Your task to perform on an android device: Toggle the flashlight Image 0: 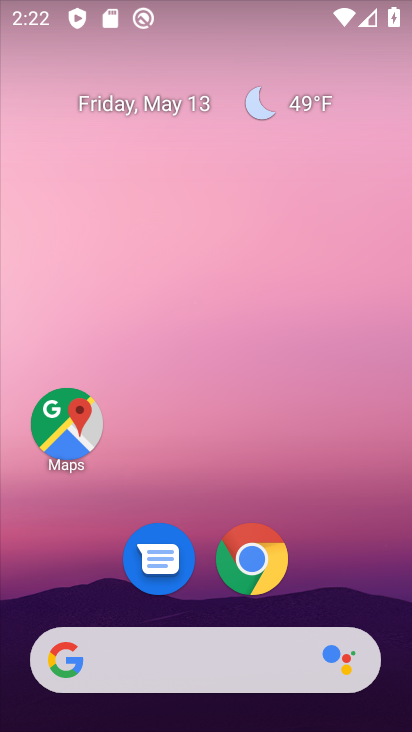
Step 0: drag from (235, 10) to (276, 442)
Your task to perform on an android device: Toggle the flashlight Image 1: 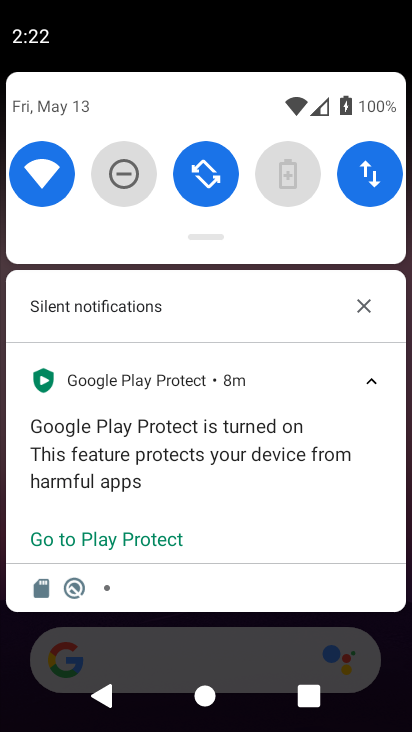
Step 1: drag from (196, 242) to (203, 509)
Your task to perform on an android device: Toggle the flashlight Image 2: 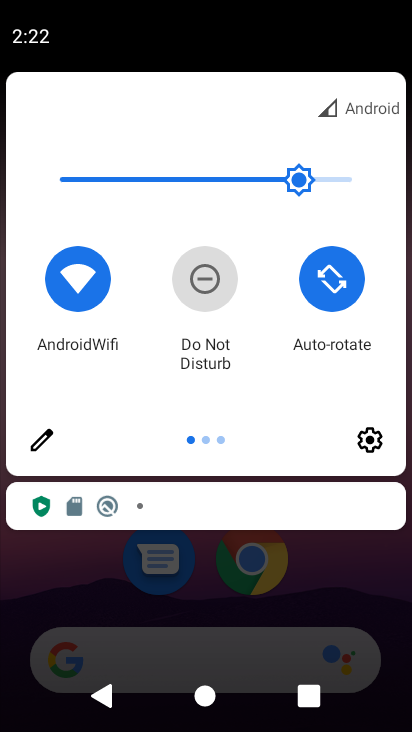
Step 2: click (35, 435)
Your task to perform on an android device: Toggle the flashlight Image 3: 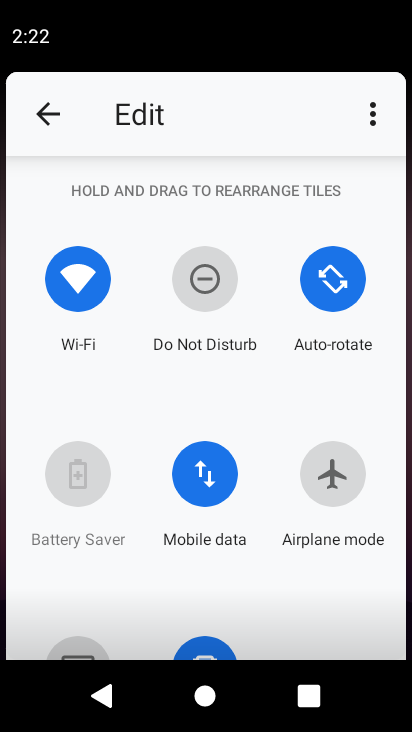
Step 3: task complete